Your task to perform on an android device: Open Maps and search for coffee Image 0: 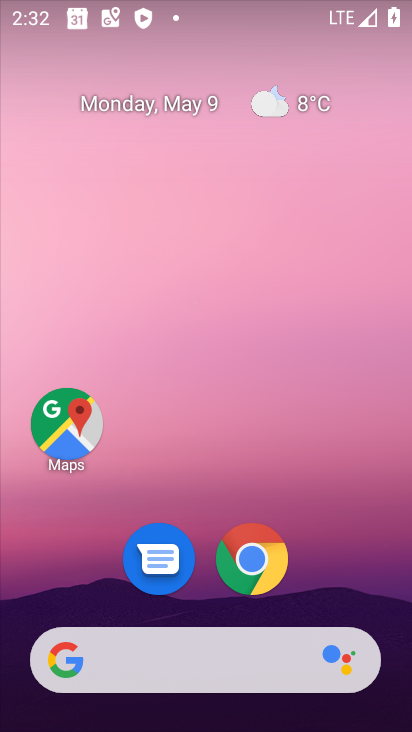
Step 0: click (60, 428)
Your task to perform on an android device: Open Maps and search for coffee Image 1: 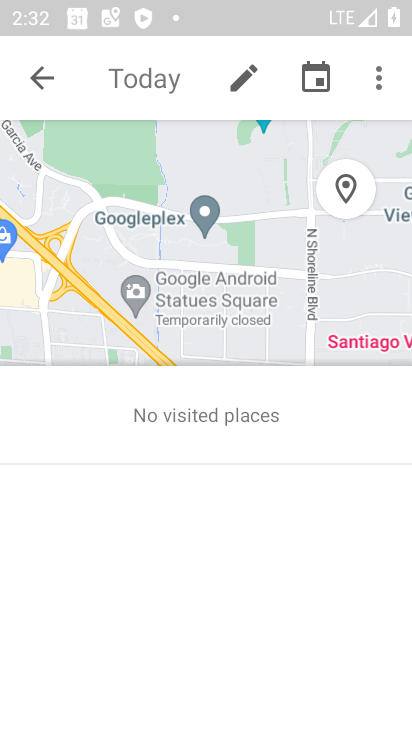
Step 1: click (148, 76)
Your task to perform on an android device: Open Maps and search for coffee Image 2: 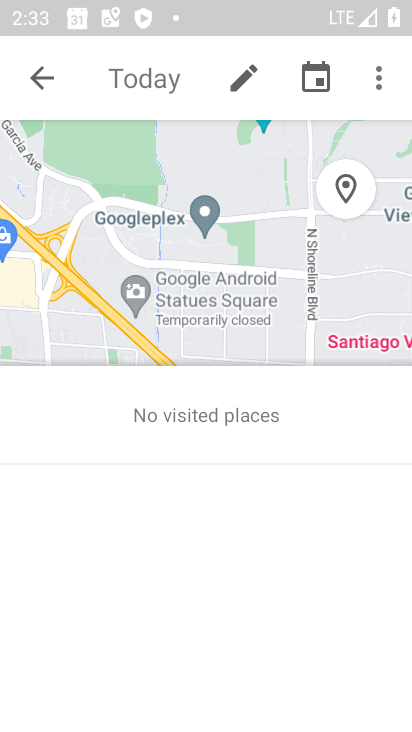
Step 2: click (121, 66)
Your task to perform on an android device: Open Maps and search for coffee Image 3: 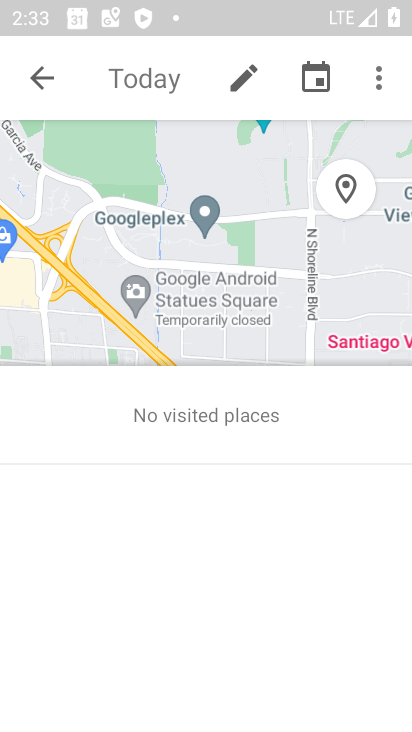
Step 3: click (38, 70)
Your task to perform on an android device: Open Maps and search for coffee Image 4: 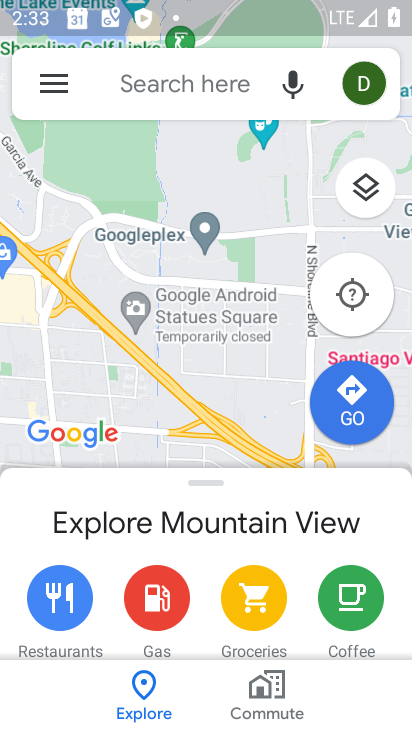
Step 4: click (169, 87)
Your task to perform on an android device: Open Maps and search for coffee Image 5: 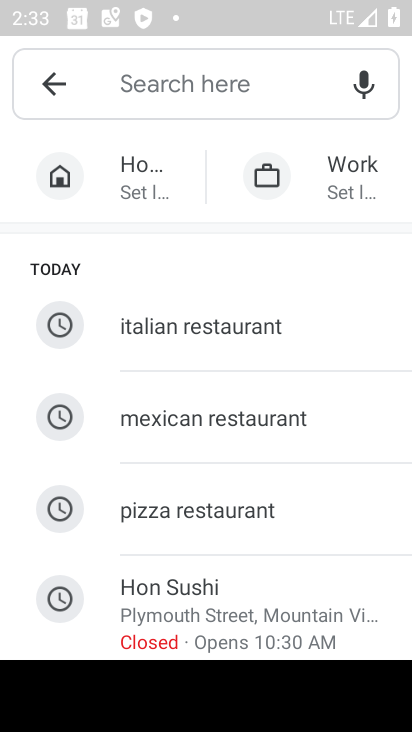
Step 5: type "coffee"
Your task to perform on an android device: Open Maps and search for coffee Image 6: 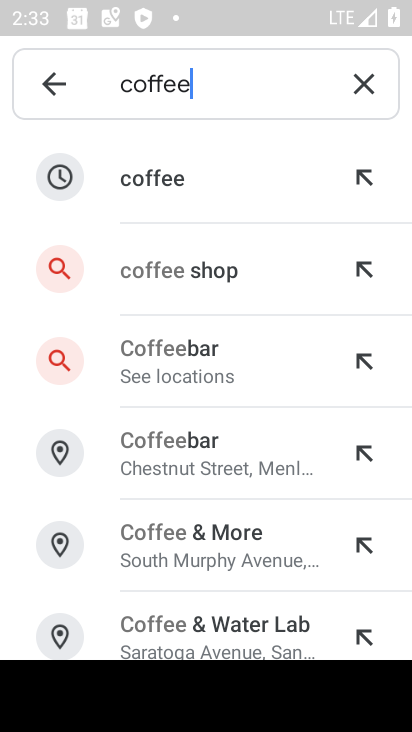
Step 6: click (163, 169)
Your task to perform on an android device: Open Maps and search for coffee Image 7: 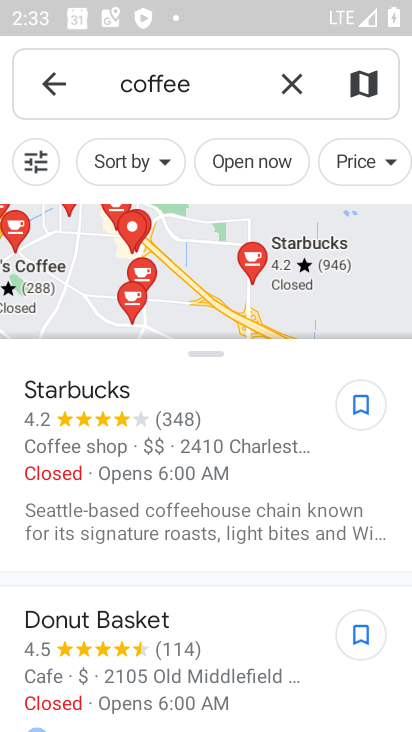
Step 7: task complete